Your task to perform on an android device: toggle notifications settings in the gmail app Image 0: 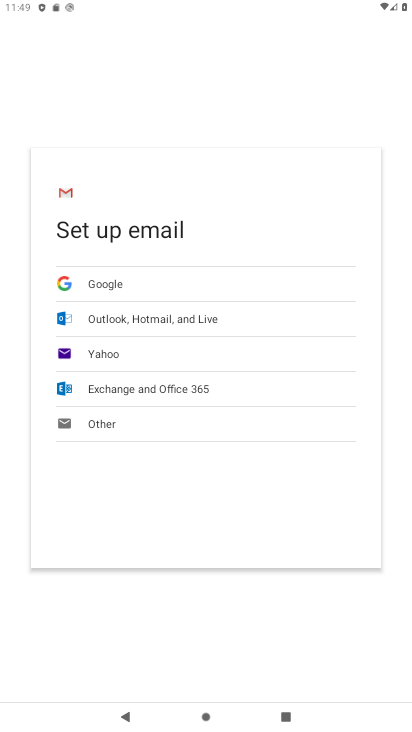
Step 0: press home button
Your task to perform on an android device: toggle notifications settings in the gmail app Image 1: 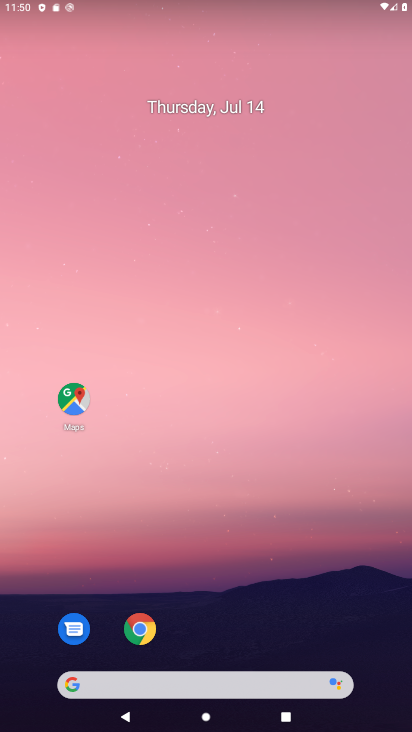
Step 1: drag from (332, 597) to (224, 132)
Your task to perform on an android device: toggle notifications settings in the gmail app Image 2: 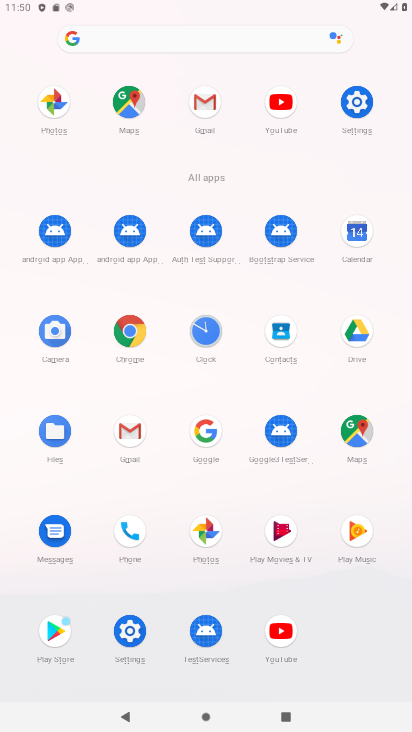
Step 2: click (131, 443)
Your task to perform on an android device: toggle notifications settings in the gmail app Image 3: 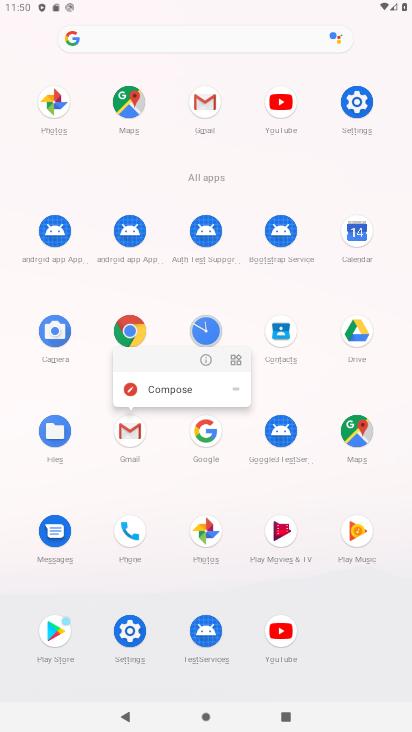
Step 3: click (200, 361)
Your task to perform on an android device: toggle notifications settings in the gmail app Image 4: 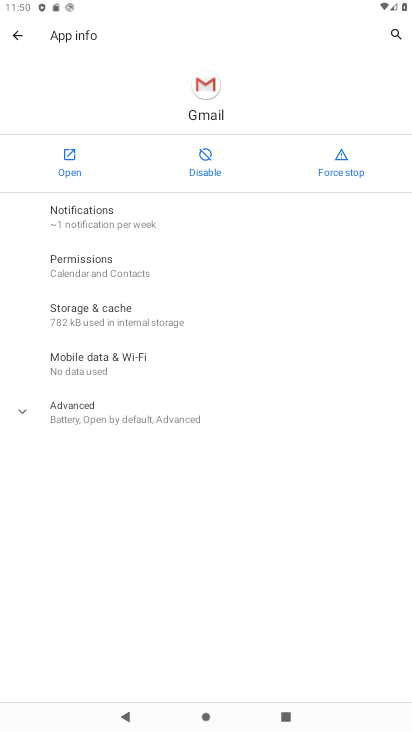
Step 4: click (110, 229)
Your task to perform on an android device: toggle notifications settings in the gmail app Image 5: 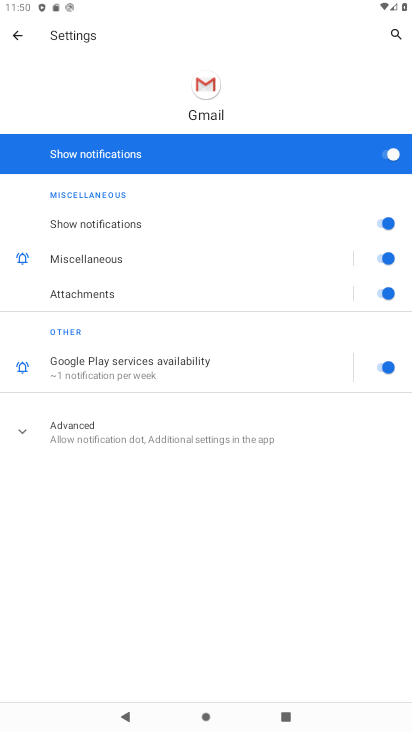
Step 5: click (372, 163)
Your task to perform on an android device: toggle notifications settings in the gmail app Image 6: 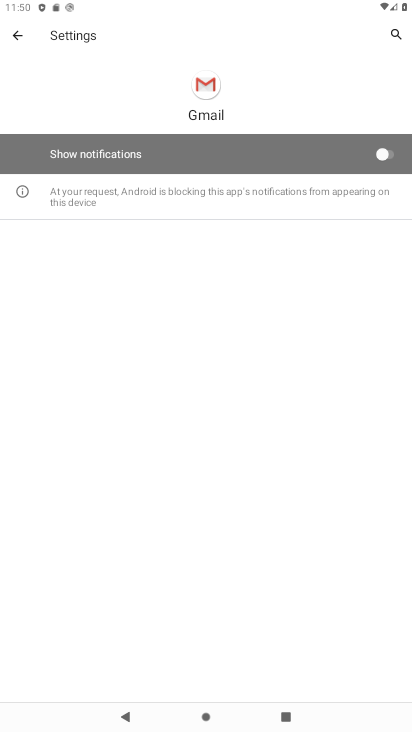
Step 6: task complete